Your task to perform on an android device: turn on showing notifications on the lock screen Image 0: 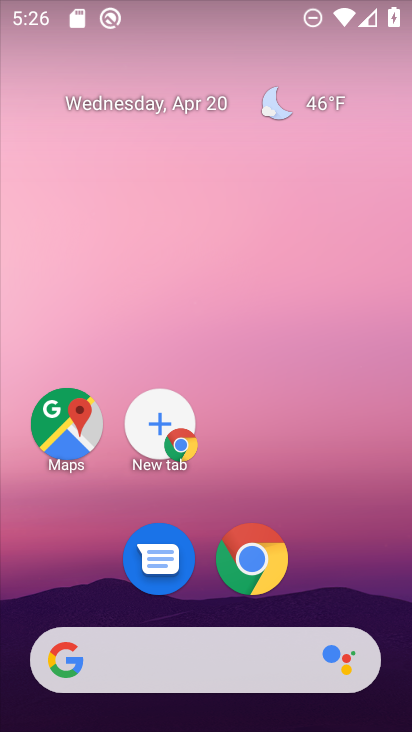
Step 0: click (241, 582)
Your task to perform on an android device: turn on showing notifications on the lock screen Image 1: 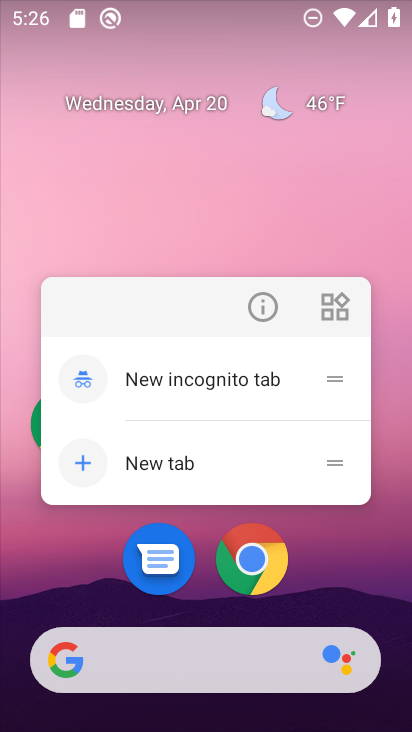
Step 1: click (383, 561)
Your task to perform on an android device: turn on showing notifications on the lock screen Image 2: 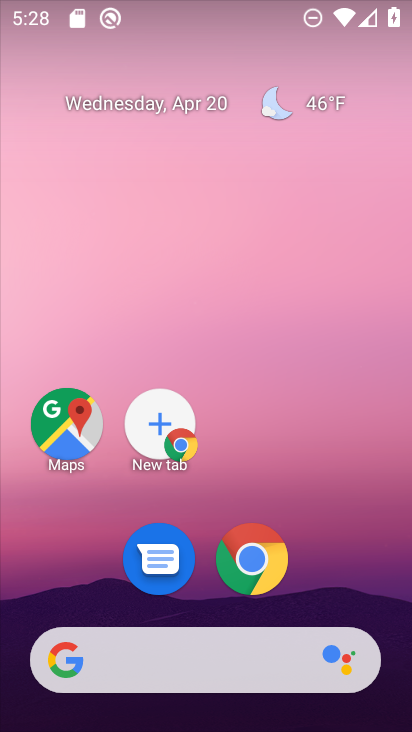
Step 2: drag from (356, 559) to (373, 250)
Your task to perform on an android device: turn on showing notifications on the lock screen Image 3: 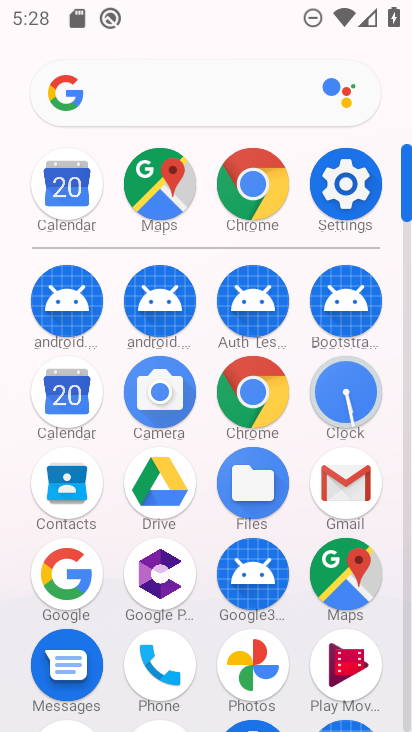
Step 3: click (343, 176)
Your task to perform on an android device: turn on showing notifications on the lock screen Image 4: 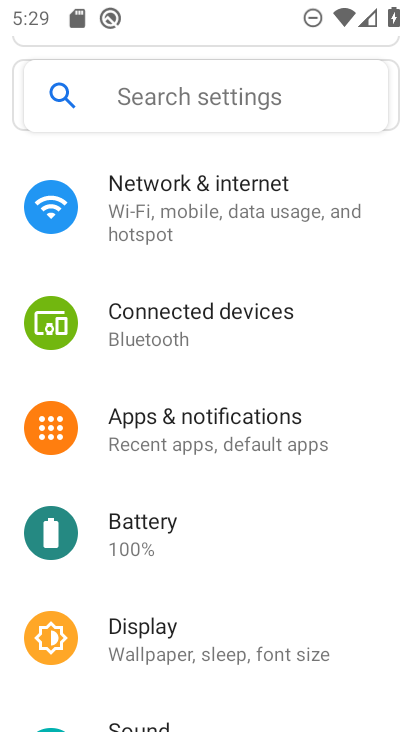
Step 4: drag from (182, 507) to (247, 248)
Your task to perform on an android device: turn on showing notifications on the lock screen Image 5: 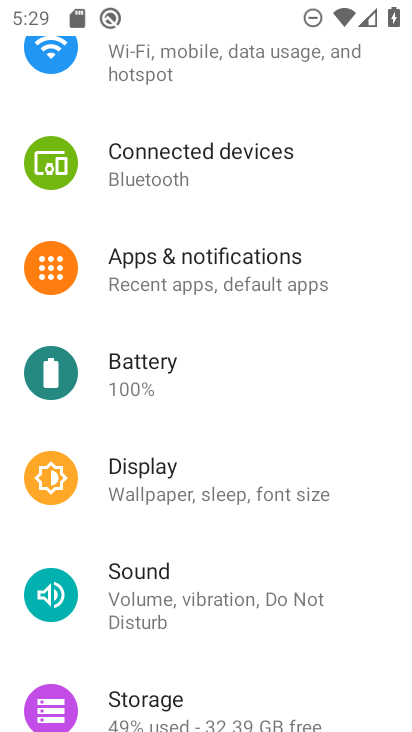
Step 5: drag from (244, 600) to (272, 306)
Your task to perform on an android device: turn on showing notifications on the lock screen Image 6: 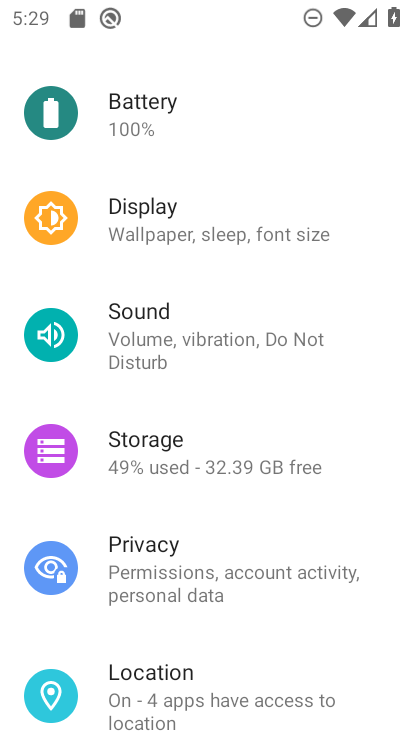
Step 6: click (170, 673)
Your task to perform on an android device: turn on showing notifications on the lock screen Image 7: 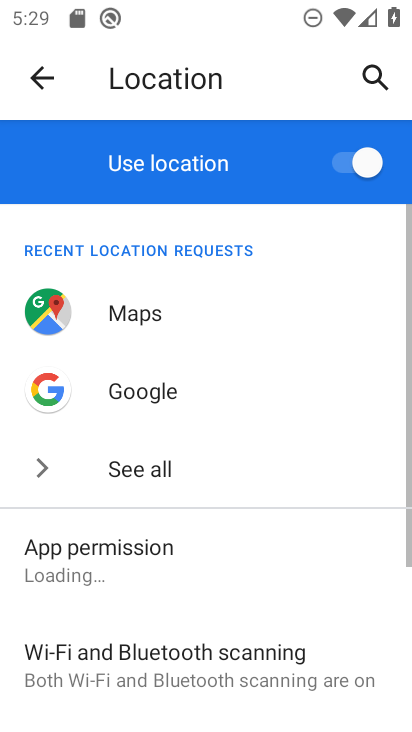
Step 7: drag from (170, 666) to (225, 307)
Your task to perform on an android device: turn on showing notifications on the lock screen Image 8: 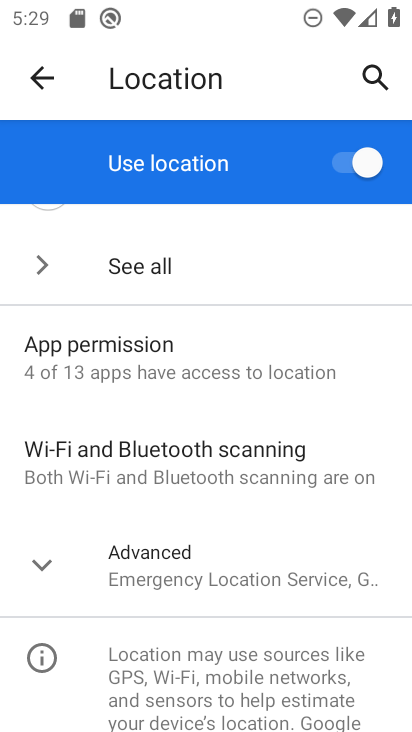
Step 8: click (192, 594)
Your task to perform on an android device: turn on showing notifications on the lock screen Image 9: 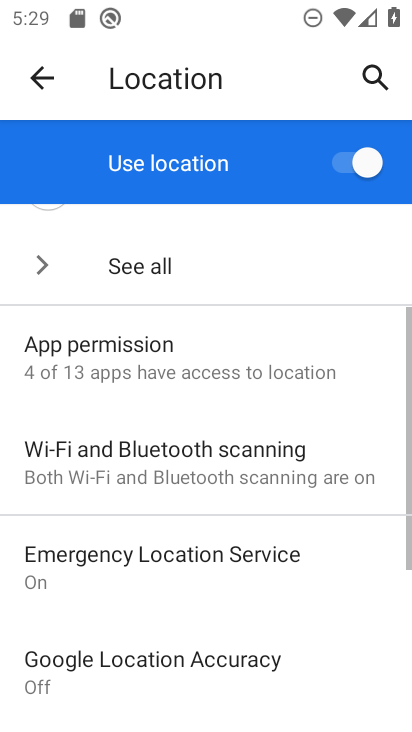
Step 9: task complete